Your task to perform on an android device: turn pop-ups on in chrome Image 0: 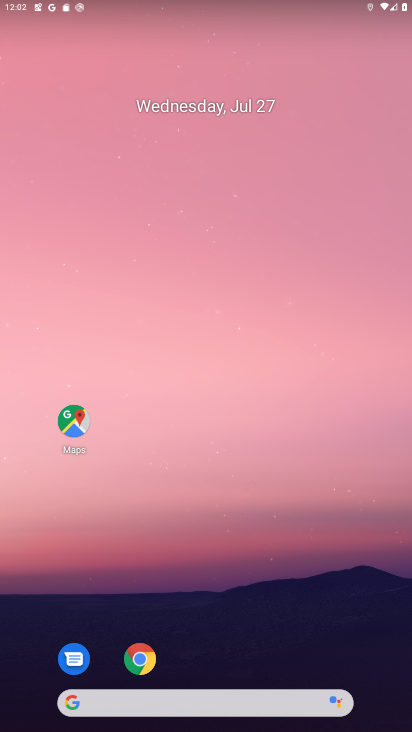
Step 0: drag from (317, 699) to (271, 10)
Your task to perform on an android device: turn pop-ups on in chrome Image 1: 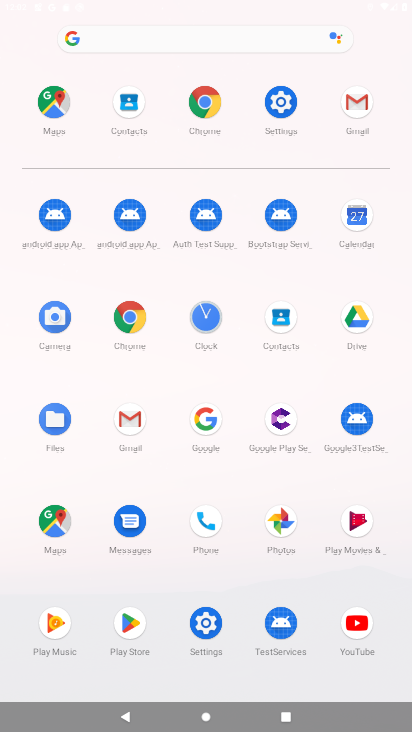
Step 1: click (122, 306)
Your task to perform on an android device: turn pop-ups on in chrome Image 2: 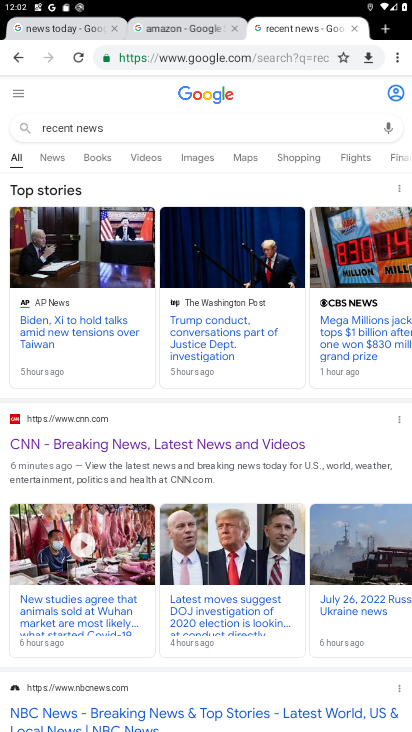
Step 2: drag from (395, 56) to (288, 346)
Your task to perform on an android device: turn pop-ups on in chrome Image 3: 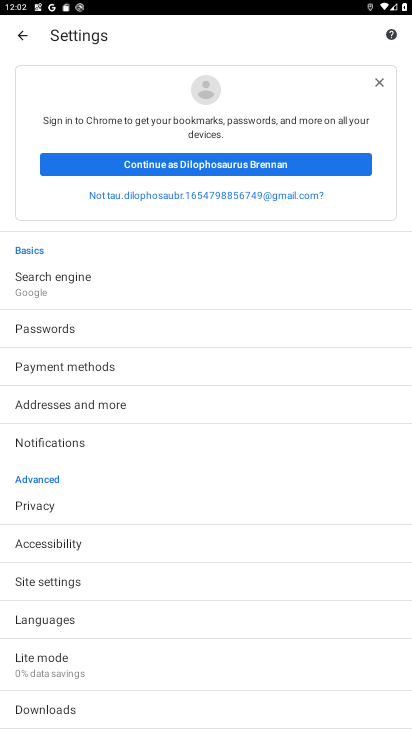
Step 3: click (104, 574)
Your task to perform on an android device: turn pop-ups on in chrome Image 4: 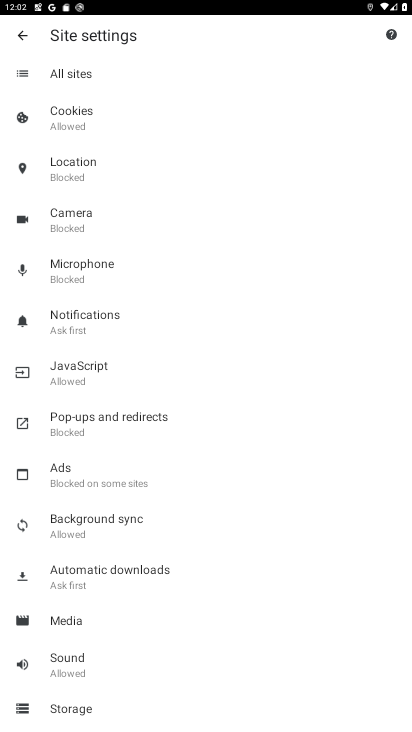
Step 4: click (118, 419)
Your task to perform on an android device: turn pop-ups on in chrome Image 5: 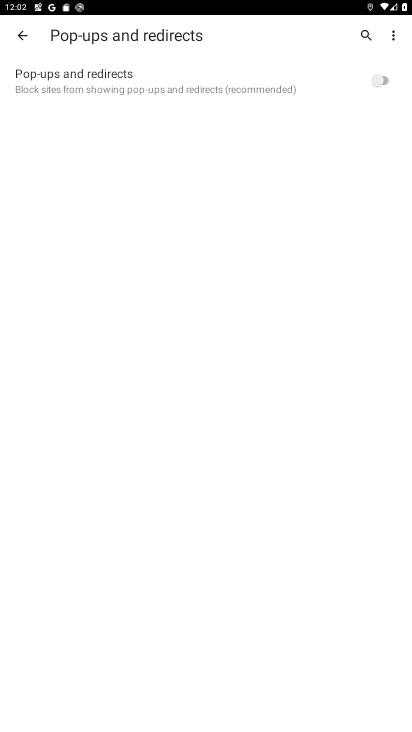
Step 5: click (387, 82)
Your task to perform on an android device: turn pop-ups on in chrome Image 6: 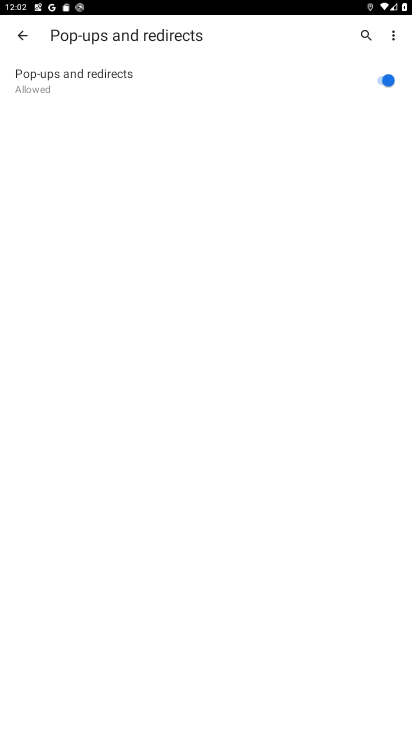
Step 6: task complete